Your task to perform on an android device: Open Google Chrome Image 0: 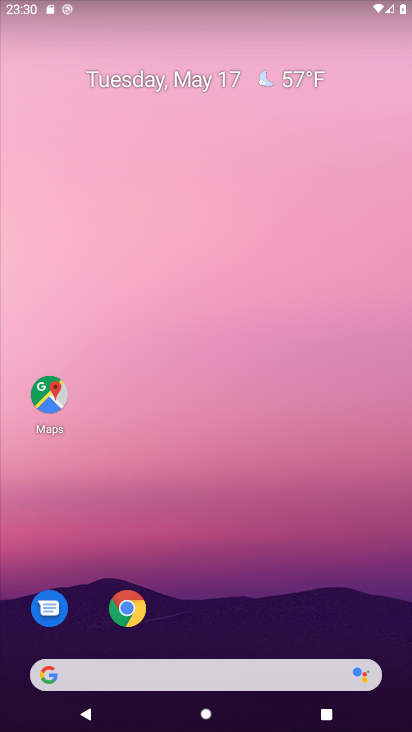
Step 0: click (141, 606)
Your task to perform on an android device: Open Google Chrome Image 1: 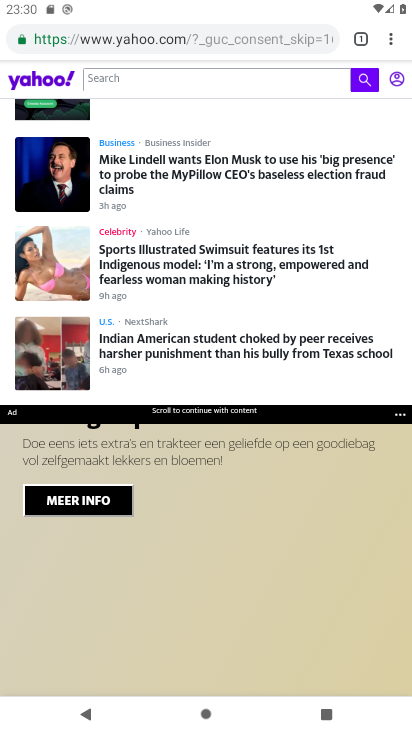
Step 1: task complete